Your task to perform on an android device: turn notification dots off Image 0: 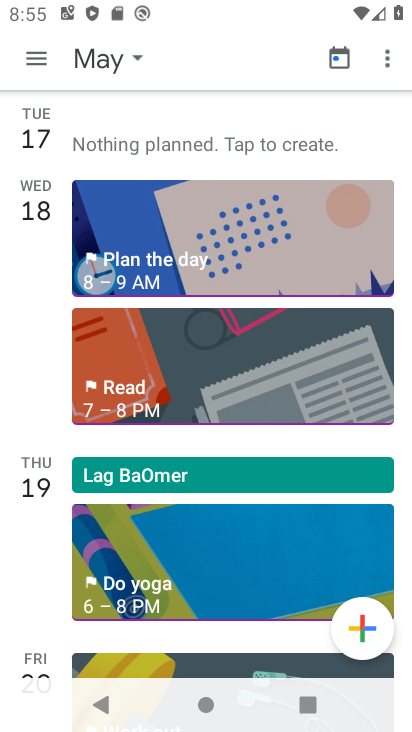
Step 0: press home button
Your task to perform on an android device: turn notification dots off Image 1: 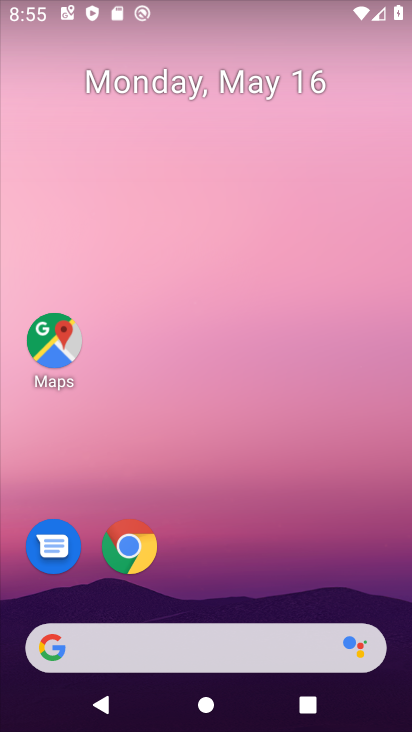
Step 1: drag from (241, 668) to (191, 391)
Your task to perform on an android device: turn notification dots off Image 2: 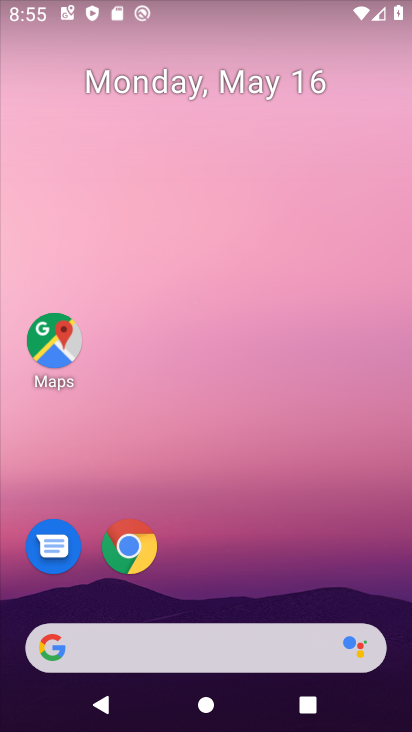
Step 2: drag from (256, 663) to (252, 233)
Your task to perform on an android device: turn notification dots off Image 3: 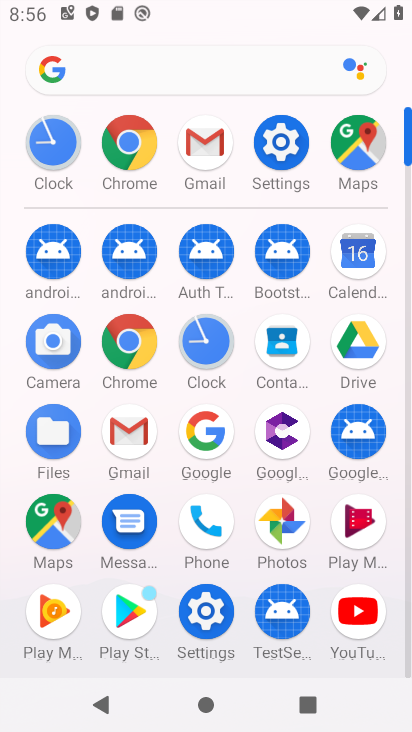
Step 3: click (280, 154)
Your task to perform on an android device: turn notification dots off Image 4: 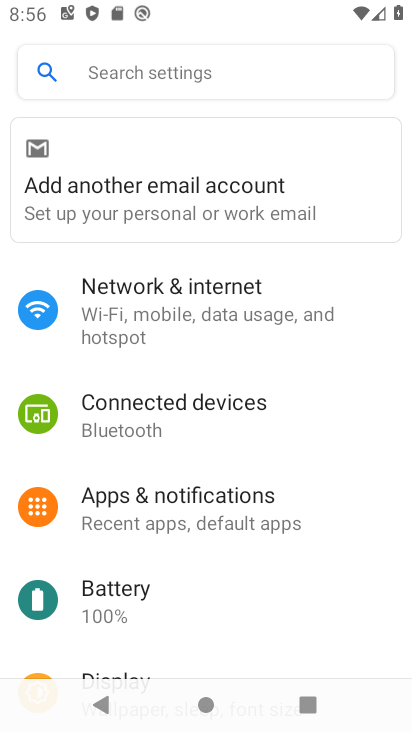
Step 4: click (175, 19)
Your task to perform on an android device: turn notification dots off Image 5: 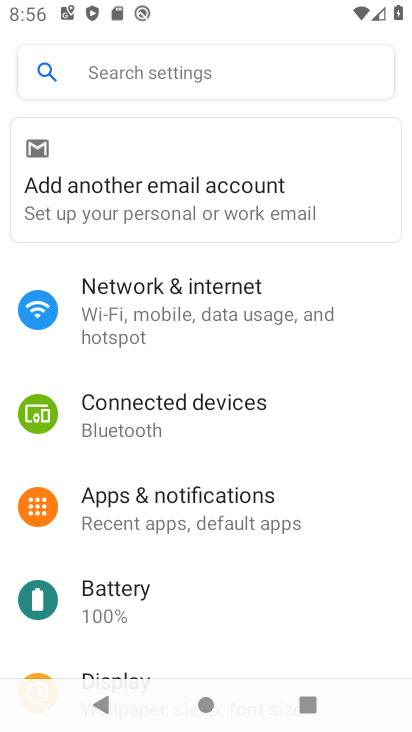
Step 5: click (139, 82)
Your task to perform on an android device: turn notification dots off Image 6: 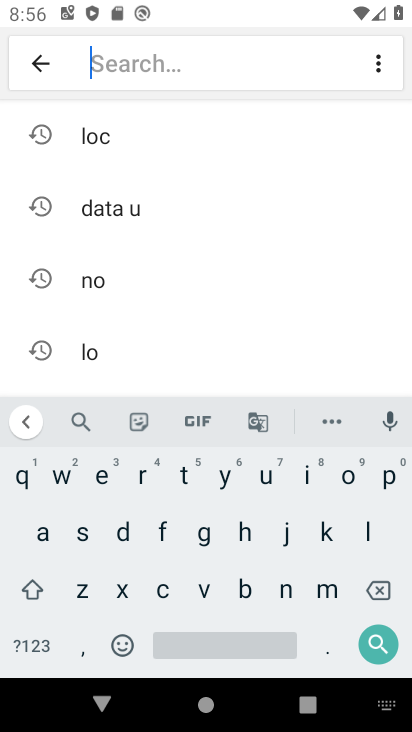
Step 6: click (128, 525)
Your task to perform on an android device: turn notification dots off Image 7: 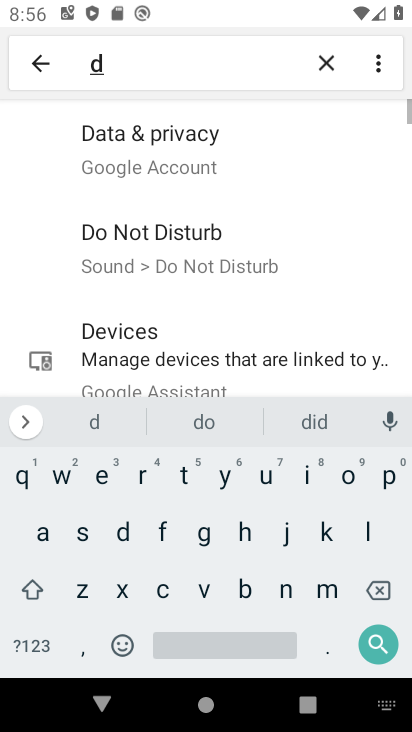
Step 7: click (347, 476)
Your task to perform on an android device: turn notification dots off Image 8: 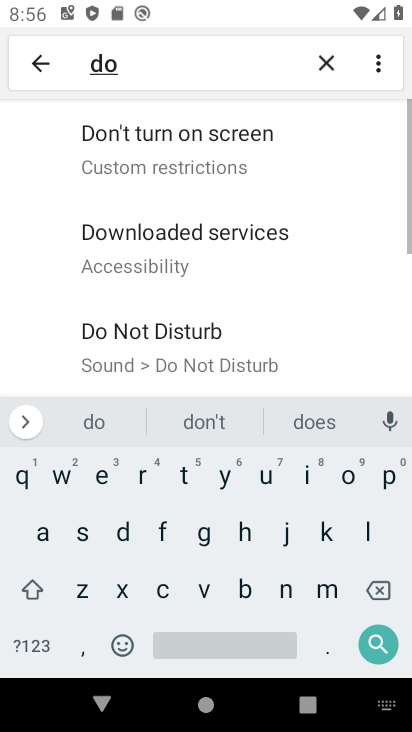
Step 8: click (189, 479)
Your task to perform on an android device: turn notification dots off Image 9: 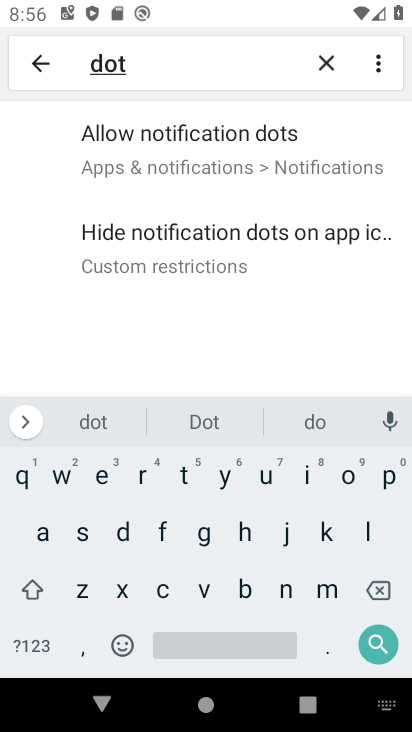
Step 9: click (225, 150)
Your task to perform on an android device: turn notification dots off Image 10: 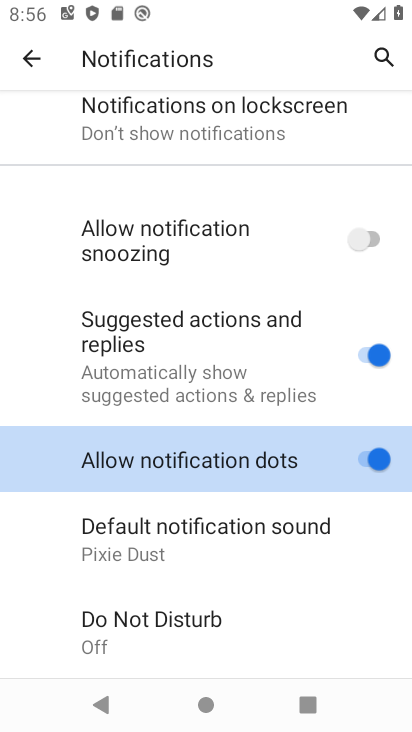
Step 10: click (355, 456)
Your task to perform on an android device: turn notification dots off Image 11: 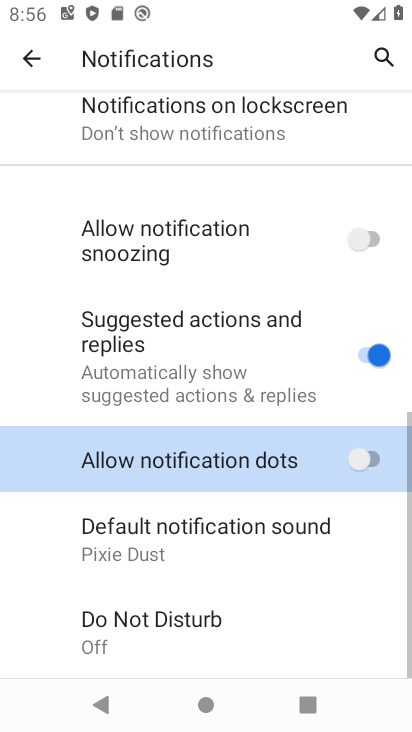
Step 11: task complete